Your task to perform on an android device: turn smart compose on in the gmail app Image 0: 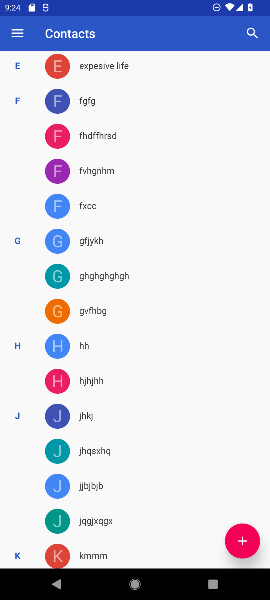
Step 0: press home button
Your task to perform on an android device: turn smart compose on in the gmail app Image 1: 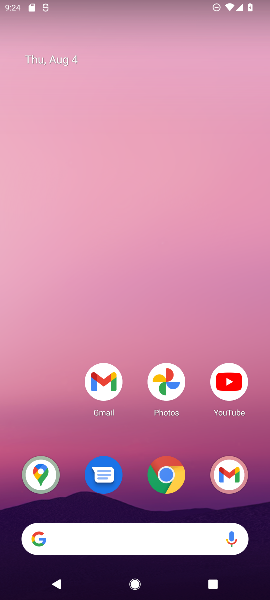
Step 1: drag from (104, 524) to (173, 166)
Your task to perform on an android device: turn smart compose on in the gmail app Image 2: 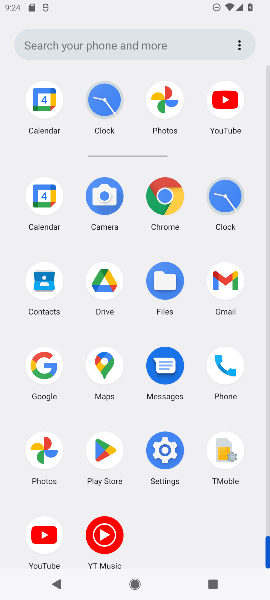
Step 2: click (214, 285)
Your task to perform on an android device: turn smart compose on in the gmail app Image 3: 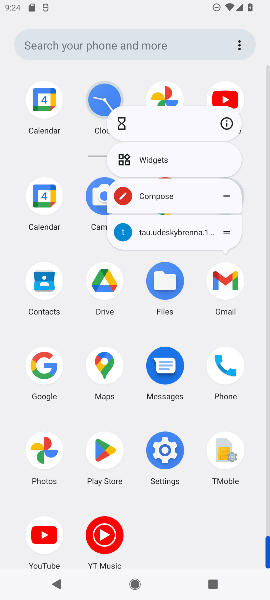
Step 3: click (224, 126)
Your task to perform on an android device: turn smart compose on in the gmail app Image 4: 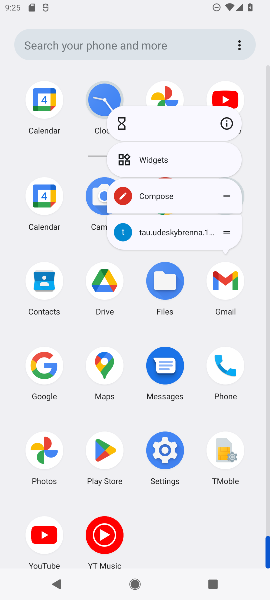
Step 4: click (222, 124)
Your task to perform on an android device: turn smart compose on in the gmail app Image 5: 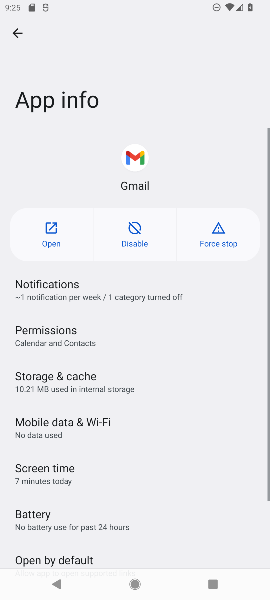
Step 5: click (34, 248)
Your task to perform on an android device: turn smart compose on in the gmail app Image 6: 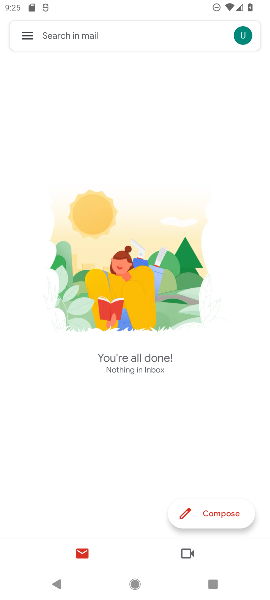
Step 6: click (27, 33)
Your task to perform on an android device: turn smart compose on in the gmail app Image 7: 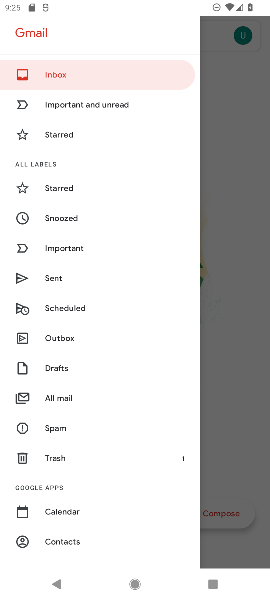
Step 7: drag from (74, 485) to (103, 105)
Your task to perform on an android device: turn smart compose on in the gmail app Image 8: 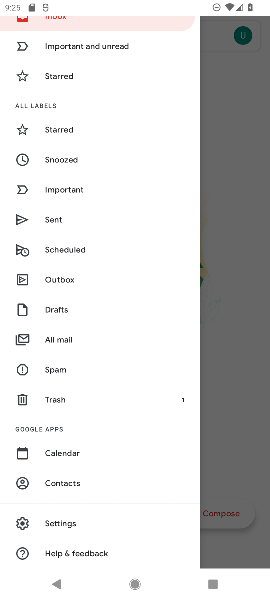
Step 8: click (65, 521)
Your task to perform on an android device: turn smart compose on in the gmail app Image 9: 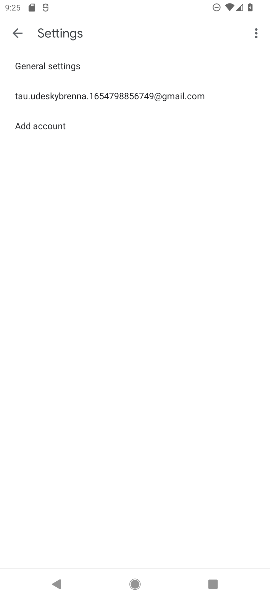
Step 9: click (120, 88)
Your task to perform on an android device: turn smart compose on in the gmail app Image 10: 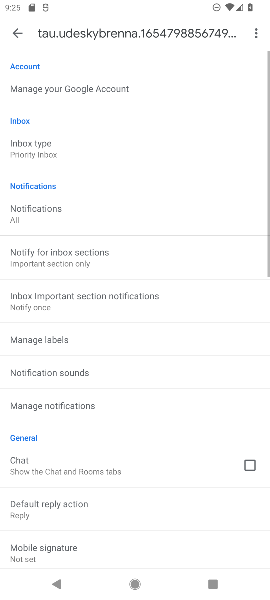
Step 10: task complete